Your task to perform on an android device: open a bookmark in the chrome app Image 0: 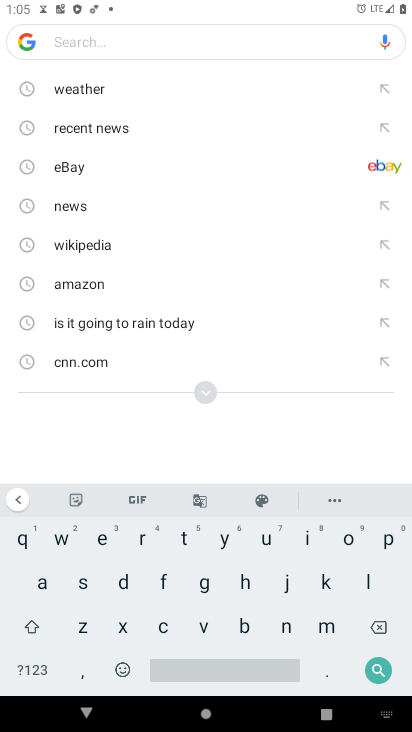
Step 0: press home button
Your task to perform on an android device: open a bookmark in the chrome app Image 1: 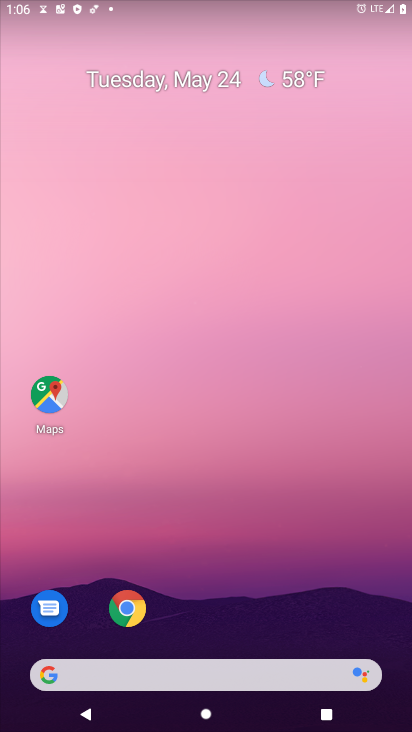
Step 1: drag from (296, 708) to (238, 171)
Your task to perform on an android device: open a bookmark in the chrome app Image 2: 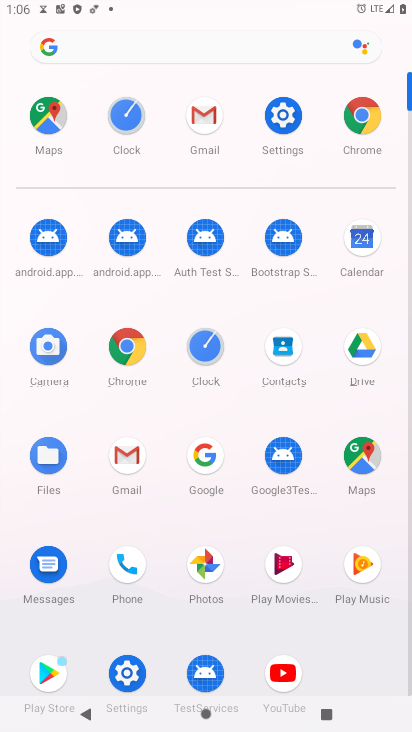
Step 2: click (371, 129)
Your task to perform on an android device: open a bookmark in the chrome app Image 3: 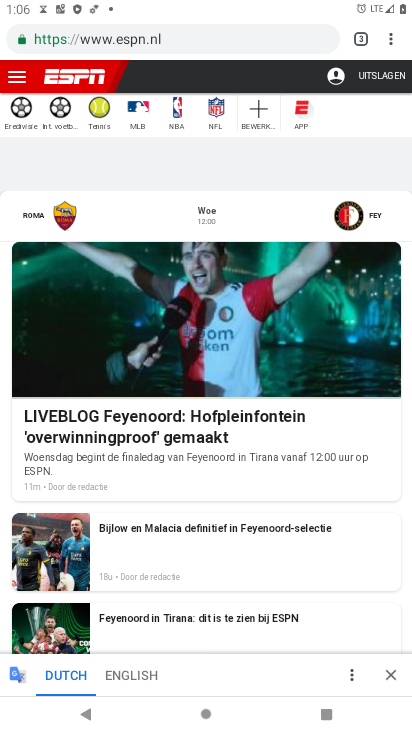
Step 3: click (388, 34)
Your task to perform on an android device: open a bookmark in the chrome app Image 4: 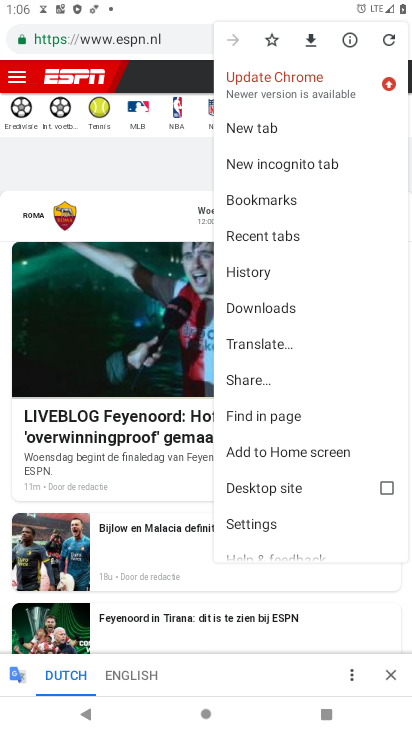
Step 4: click (262, 189)
Your task to perform on an android device: open a bookmark in the chrome app Image 5: 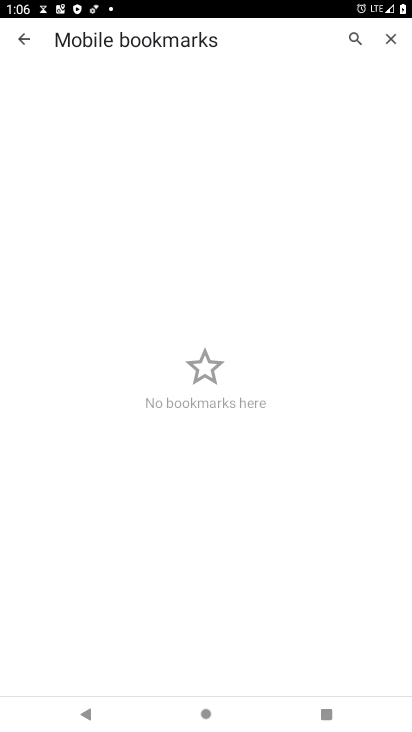
Step 5: task complete